Your task to perform on an android device: change the clock display to show seconds Image 0: 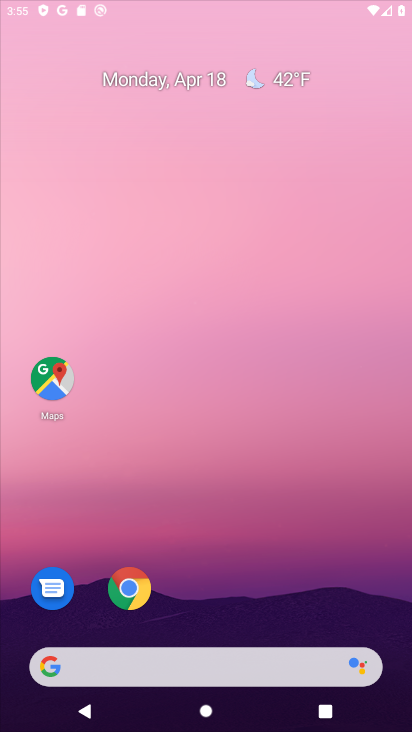
Step 0: click (141, 593)
Your task to perform on an android device: change the clock display to show seconds Image 1: 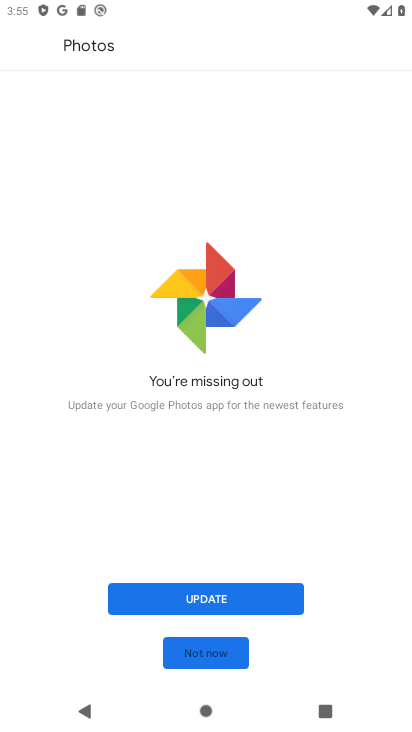
Step 1: press home button
Your task to perform on an android device: change the clock display to show seconds Image 2: 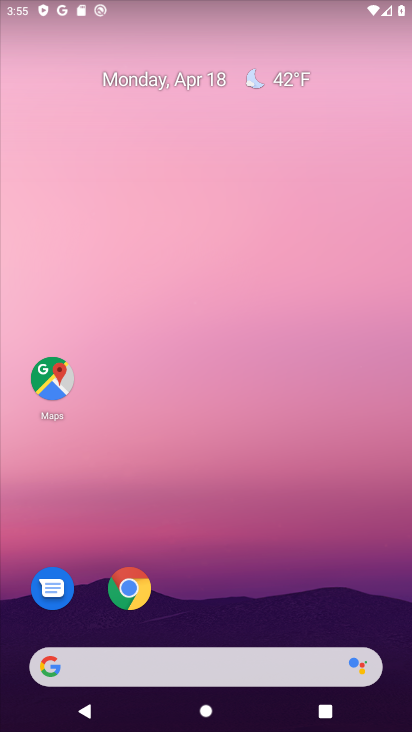
Step 2: drag from (317, 417) to (363, 96)
Your task to perform on an android device: change the clock display to show seconds Image 3: 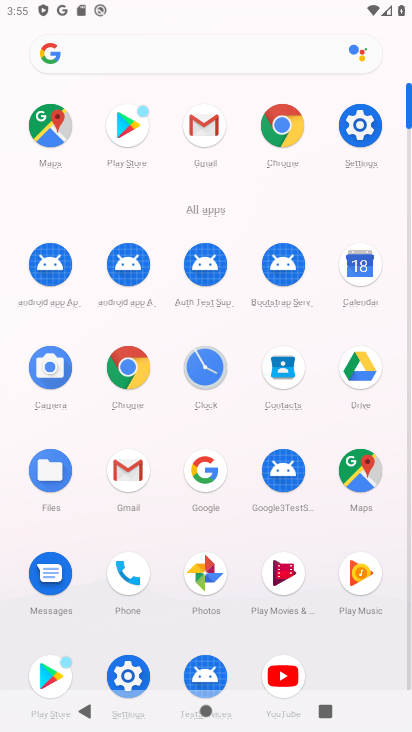
Step 3: click (215, 371)
Your task to perform on an android device: change the clock display to show seconds Image 4: 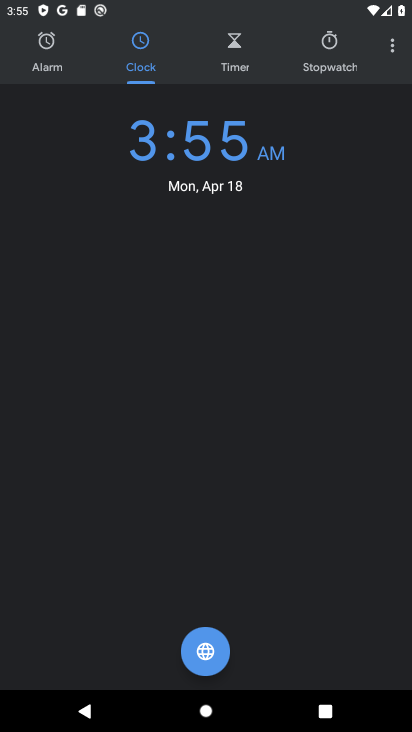
Step 4: click (392, 42)
Your task to perform on an android device: change the clock display to show seconds Image 5: 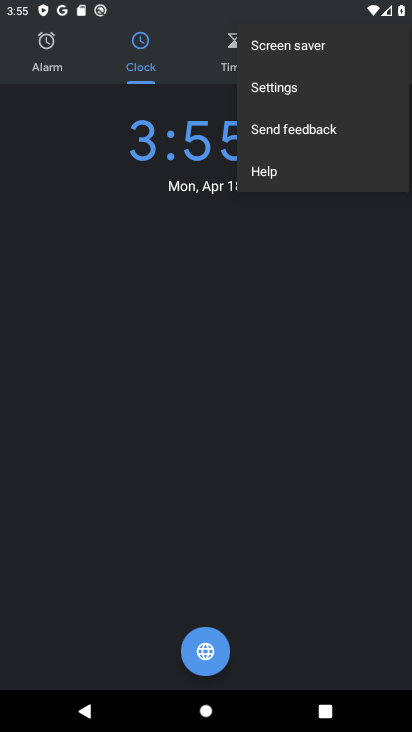
Step 5: click (331, 83)
Your task to perform on an android device: change the clock display to show seconds Image 6: 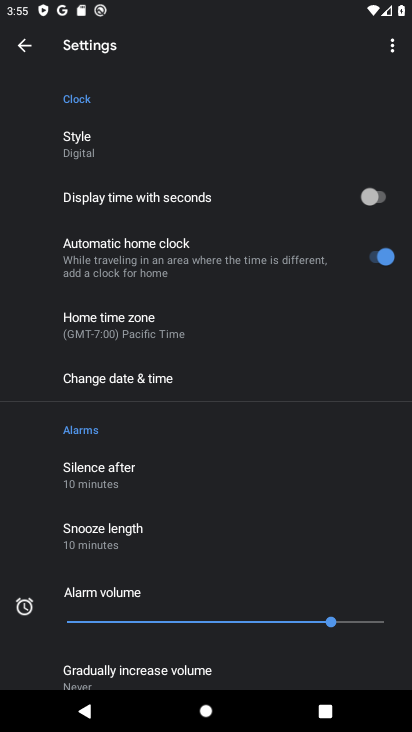
Step 6: click (379, 201)
Your task to perform on an android device: change the clock display to show seconds Image 7: 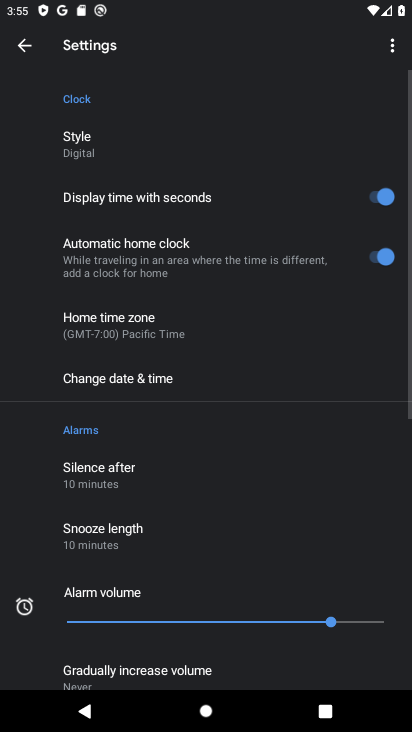
Step 7: task complete